Your task to perform on an android device: Open display settings Image 0: 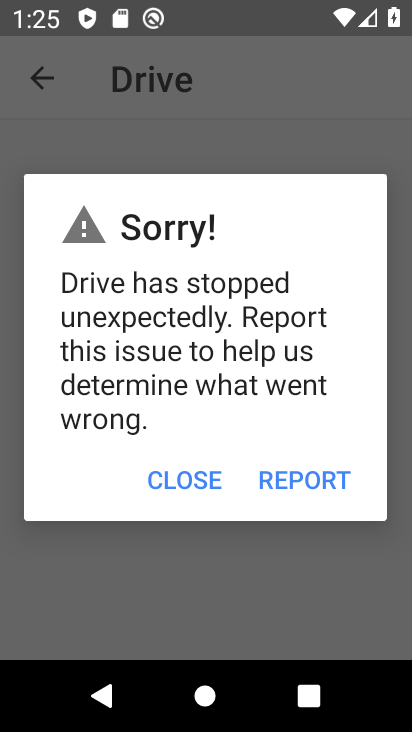
Step 0: press home button
Your task to perform on an android device: Open display settings Image 1: 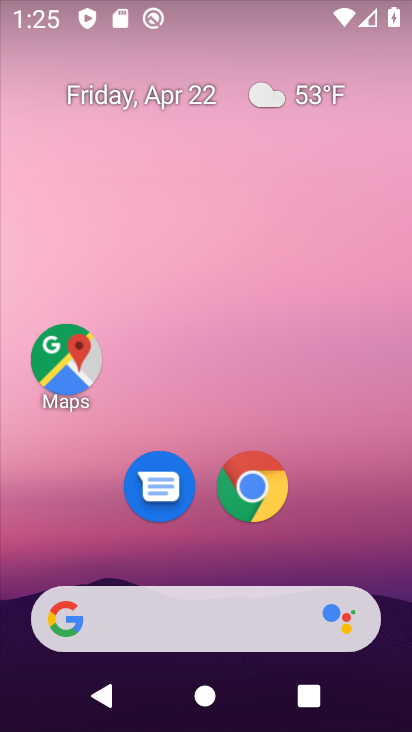
Step 1: drag from (195, 553) to (301, 6)
Your task to perform on an android device: Open display settings Image 2: 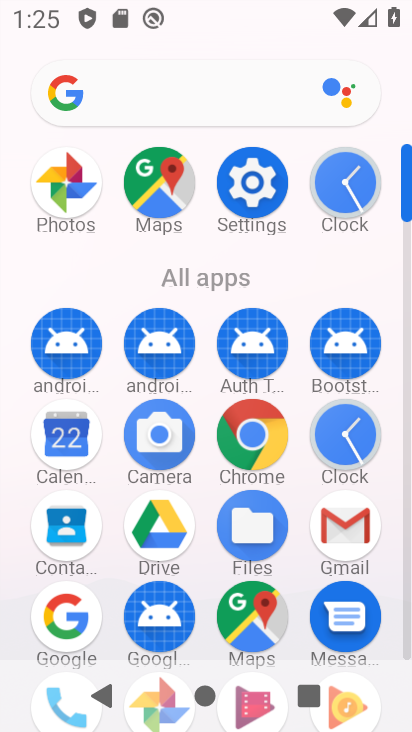
Step 2: click (242, 207)
Your task to perform on an android device: Open display settings Image 3: 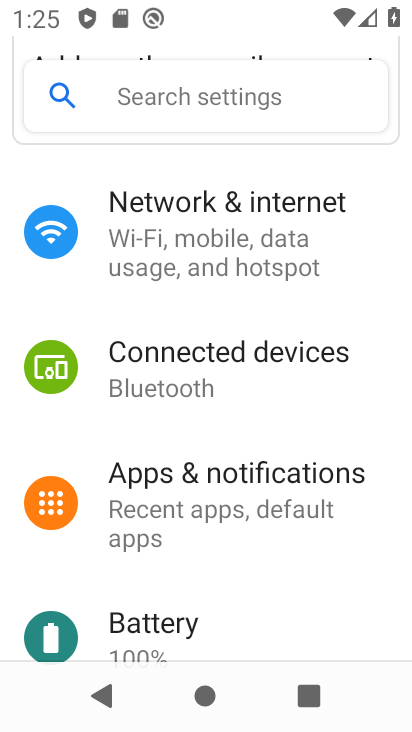
Step 3: drag from (157, 580) to (184, 163)
Your task to perform on an android device: Open display settings Image 4: 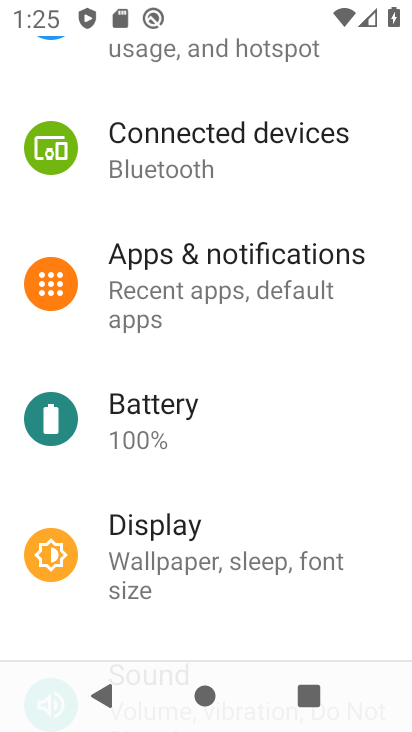
Step 4: click (120, 596)
Your task to perform on an android device: Open display settings Image 5: 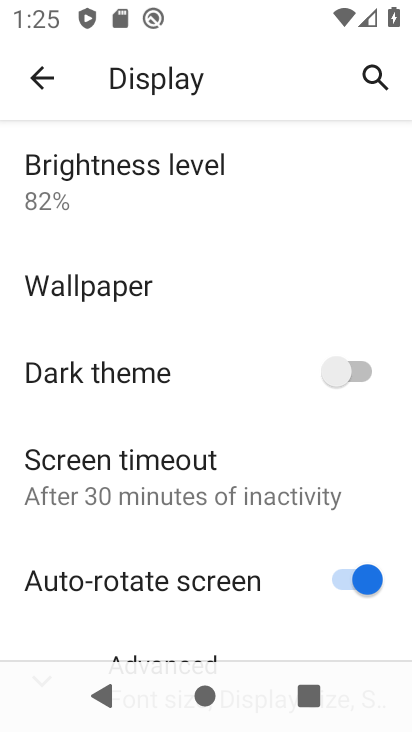
Step 5: task complete